Your task to perform on an android device: open the mobile data screen to see how much data has been used Image 0: 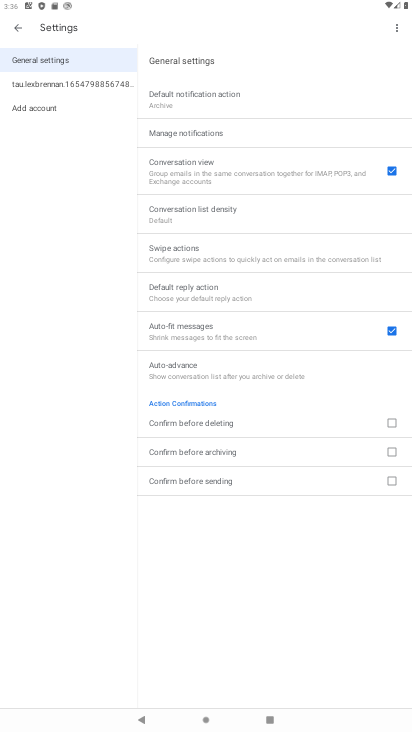
Step 0: press home button
Your task to perform on an android device: open the mobile data screen to see how much data has been used Image 1: 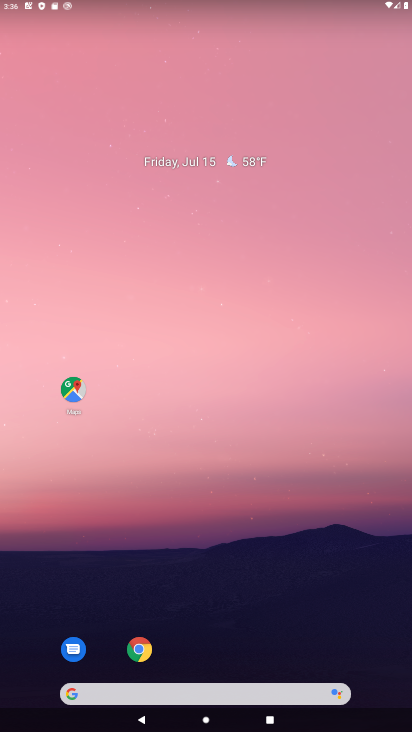
Step 1: drag from (231, 728) to (256, 101)
Your task to perform on an android device: open the mobile data screen to see how much data has been used Image 2: 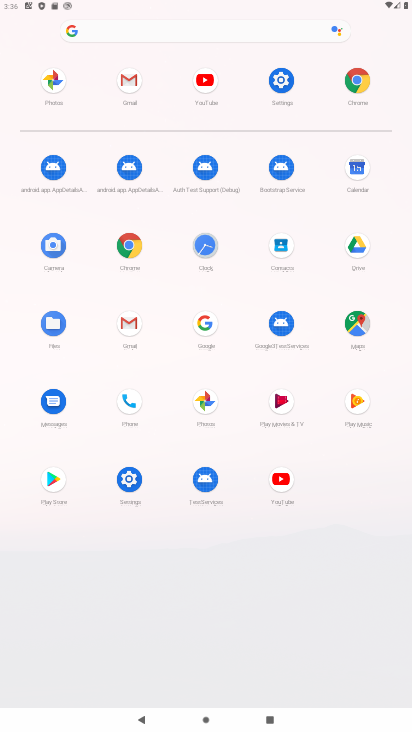
Step 2: click (128, 477)
Your task to perform on an android device: open the mobile data screen to see how much data has been used Image 3: 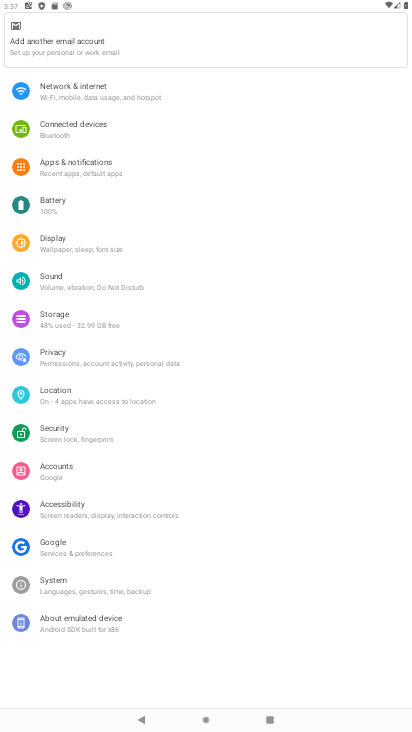
Step 3: click (51, 93)
Your task to perform on an android device: open the mobile data screen to see how much data has been used Image 4: 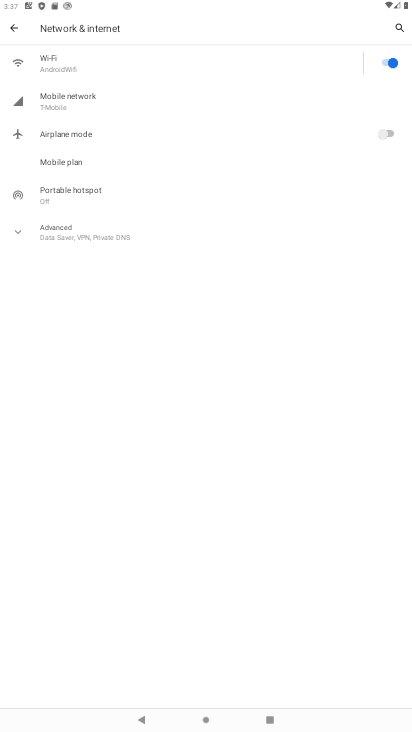
Step 4: click (51, 93)
Your task to perform on an android device: open the mobile data screen to see how much data has been used Image 5: 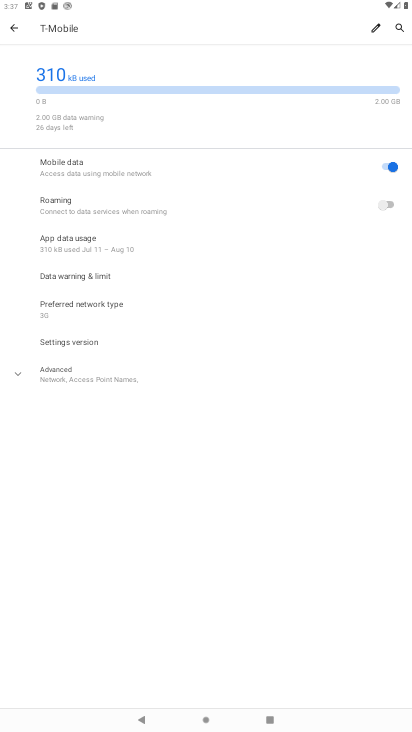
Step 5: click (86, 245)
Your task to perform on an android device: open the mobile data screen to see how much data has been used Image 6: 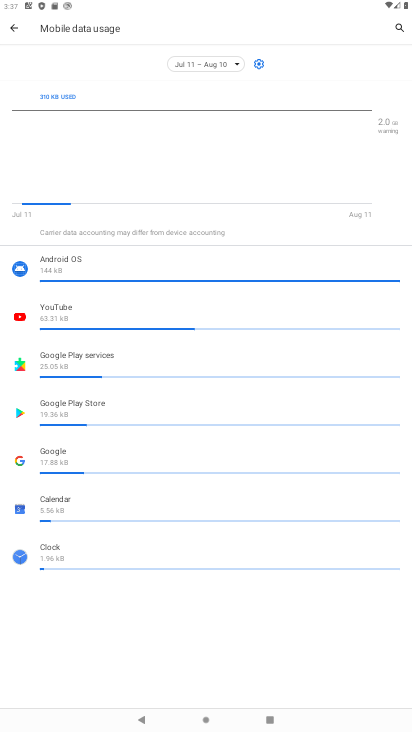
Step 6: task complete